Your task to perform on an android device: Go to Google Image 0: 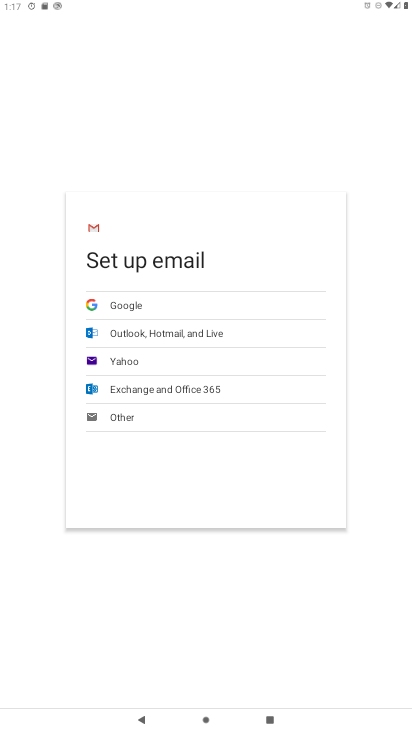
Step 0: press home button
Your task to perform on an android device: Go to Google Image 1: 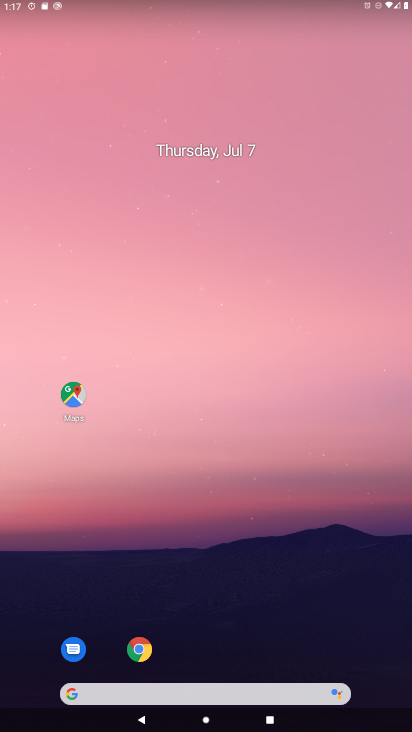
Step 1: drag from (192, 661) to (160, 96)
Your task to perform on an android device: Go to Google Image 2: 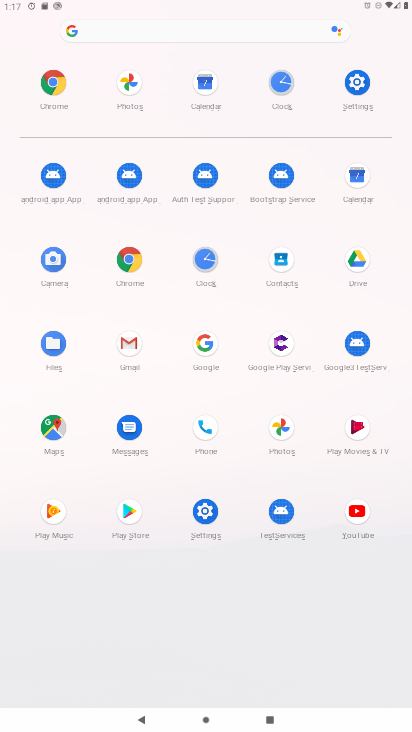
Step 2: click (199, 348)
Your task to perform on an android device: Go to Google Image 3: 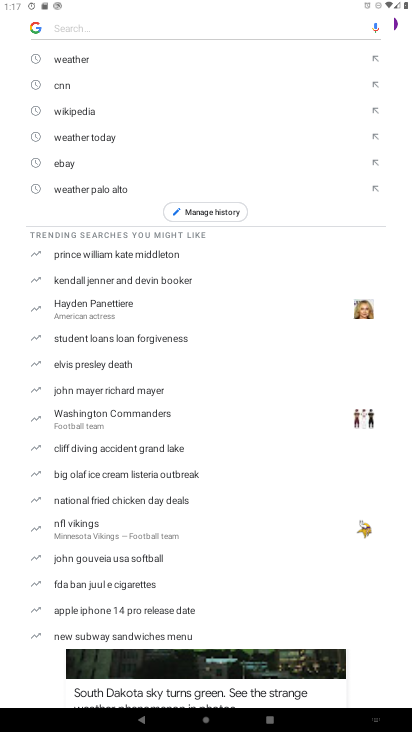
Step 3: task complete